Your task to perform on an android device: check data usage Image 0: 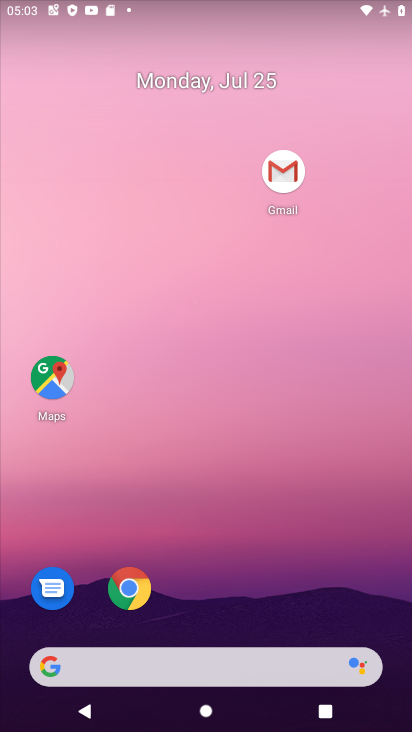
Step 0: drag from (328, 490) to (209, 25)
Your task to perform on an android device: check data usage Image 1: 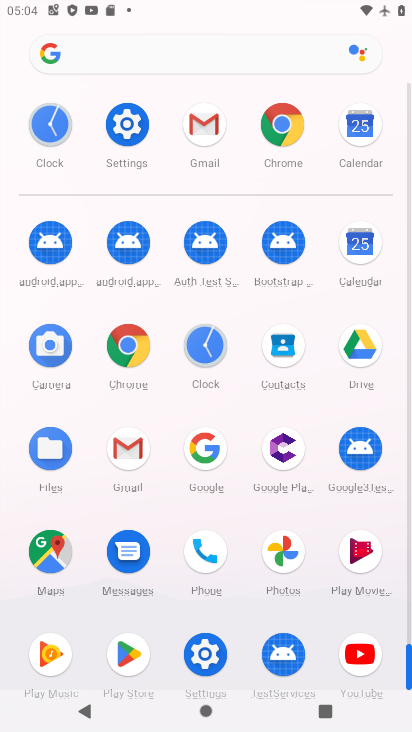
Step 1: click (130, 112)
Your task to perform on an android device: check data usage Image 2: 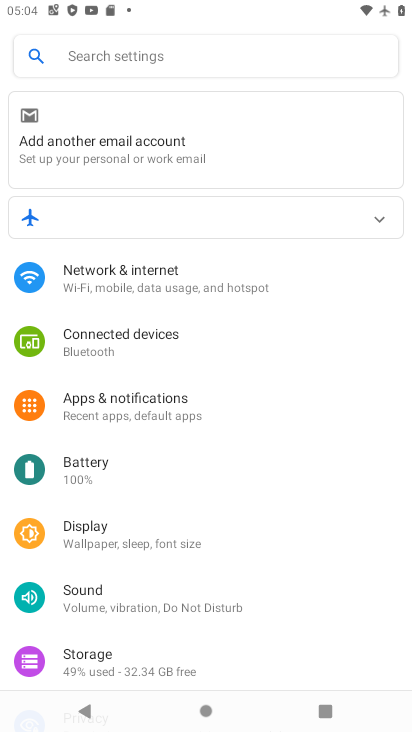
Step 2: click (157, 285)
Your task to perform on an android device: check data usage Image 3: 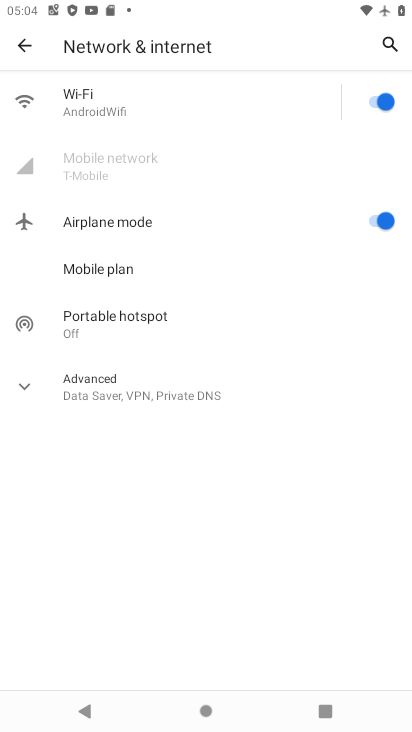
Step 3: click (88, 88)
Your task to perform on an android device: check data usage Image 4: 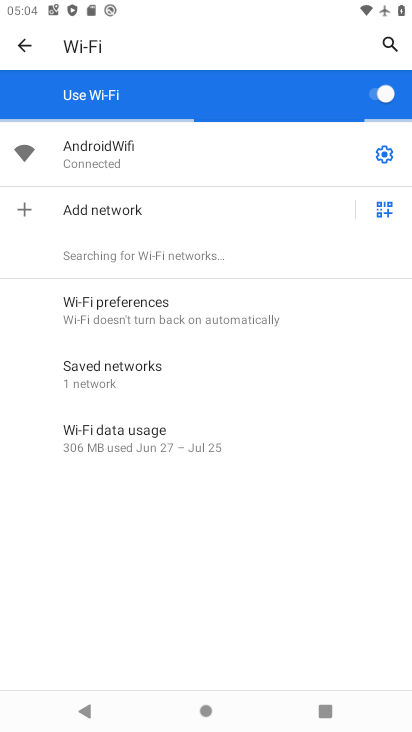
Step 4: click (120, 427)
Your task to perform on an android device: check data usage Image 5: 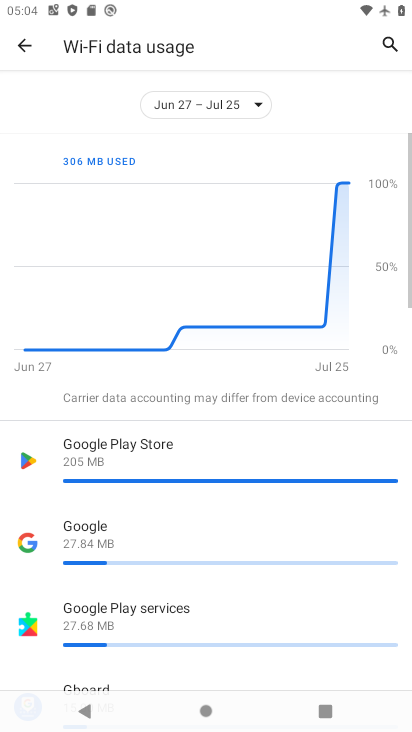
Step 5: task complete